Your task to perform on an android device: Go to Wikipedia Image 0: 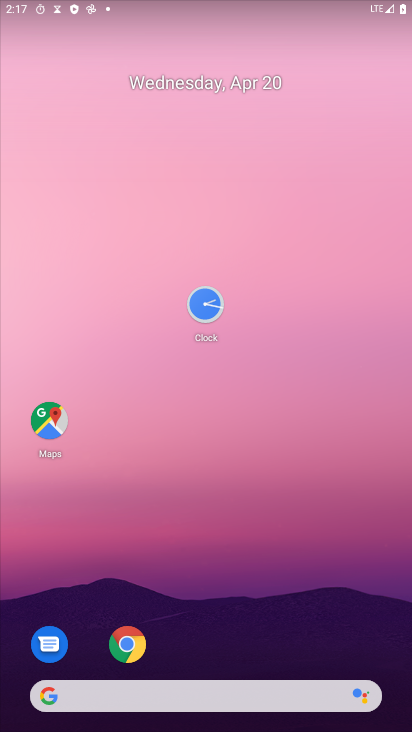
Step 0: drag from (346, 599) to (292, 10)
Your task to perform on an android device: Go to Wikipedia Image 1: 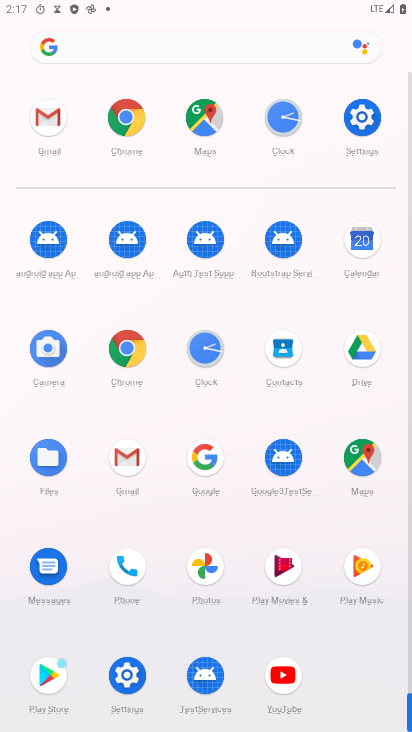
Step 1: click (128, 340)
Your task to perform on an android device: Go to Wikipedia Image 2: 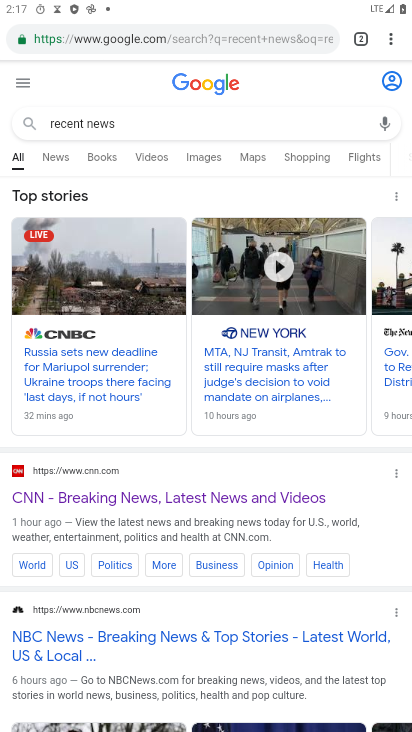
Step 2: click (309, 48)
Your task to perform on an android device: Go to Wikipedia Image 3: 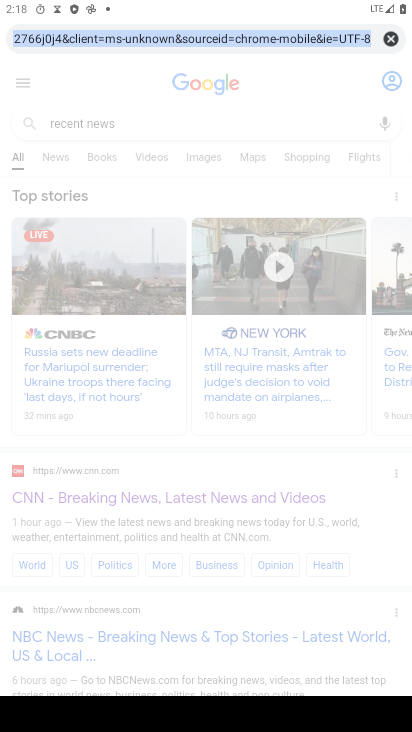
Step 3: click (392, 45)
Your task to perform on an android device: Go to Wikipedia Image 4: 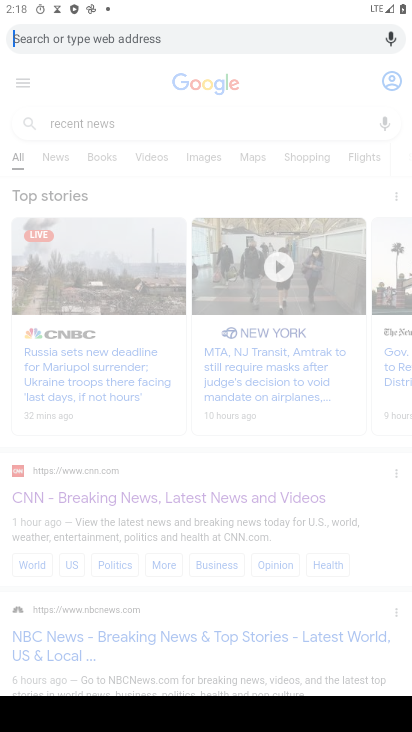
Step 4: type "wukupedia"
Your task to perform on an android device: Go to Wikipedia Image 5: 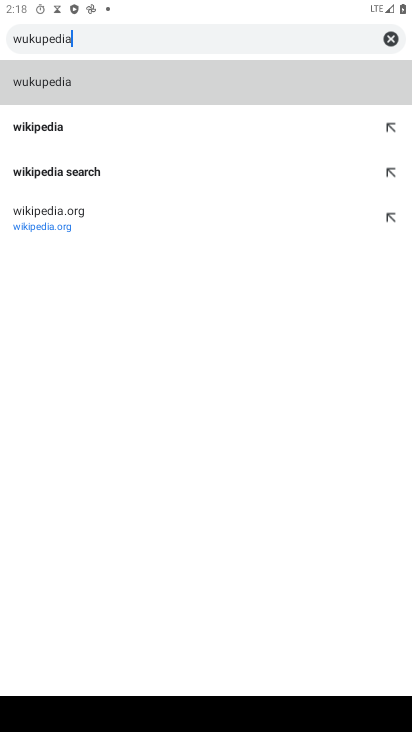
Step 5: click (65, 124)
Your task to perform on an android device: Go to Wikipedia Image 6: 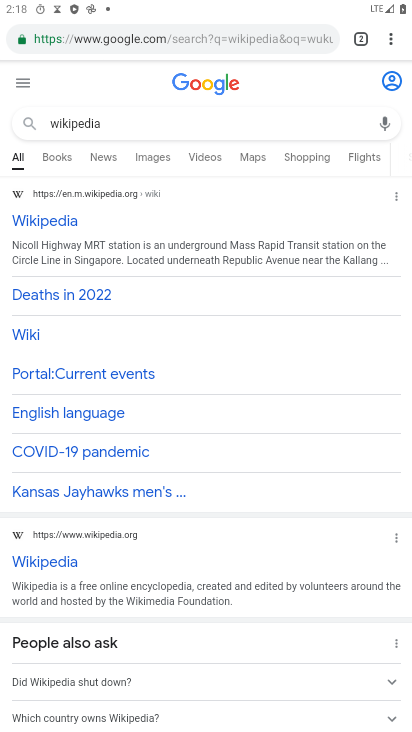
Step 6: task complete